Your task to perform on an android device: change text size in settings app Image 0: 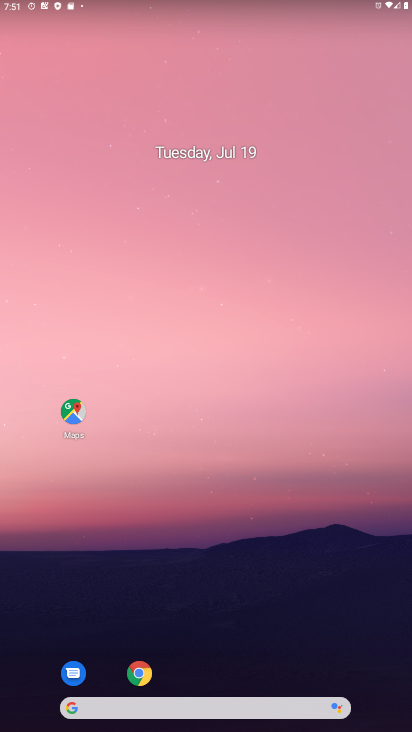
Step 0: drag from (160, 551) to (185, 18)
Your task to perform on an android device: change text size in settings app Image 1: 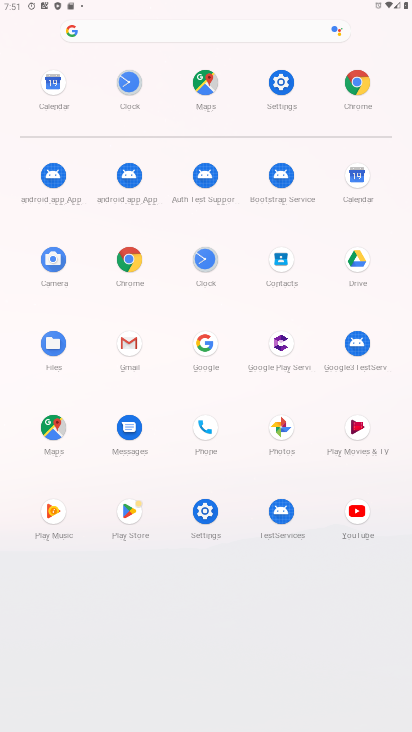
Step 1: click (278, 84)
Your task to perform on an android device: change text size in settings app Image 2: 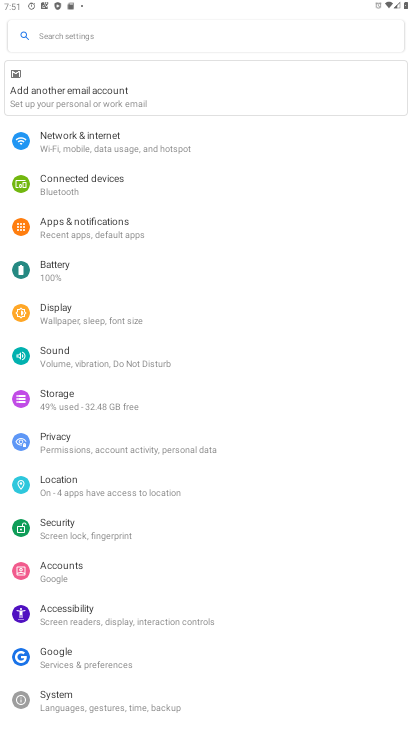
Step 2: click (83, 321)
Your task to perform on an android device: change text size in settings app Image 3: 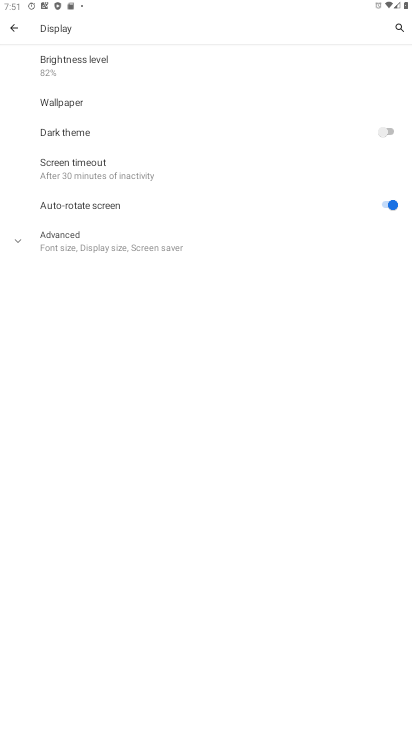
Step 3: click (108, 248)
Your task to perform on an android device: change text size in settings app Image 4: 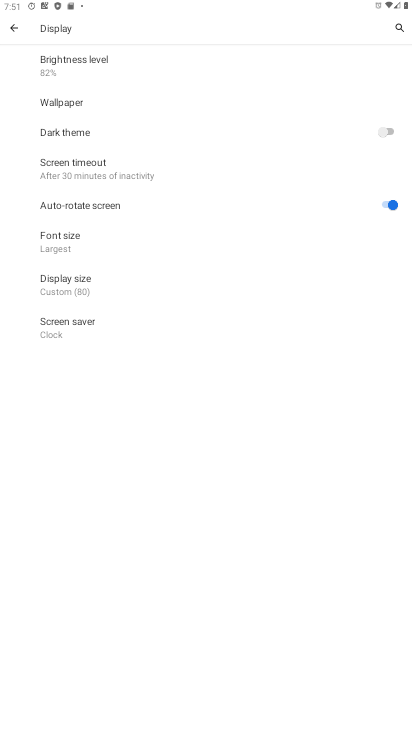
Step 4: task complete